Your task to perform on an android device: toggle improve location accuracy Image 0: 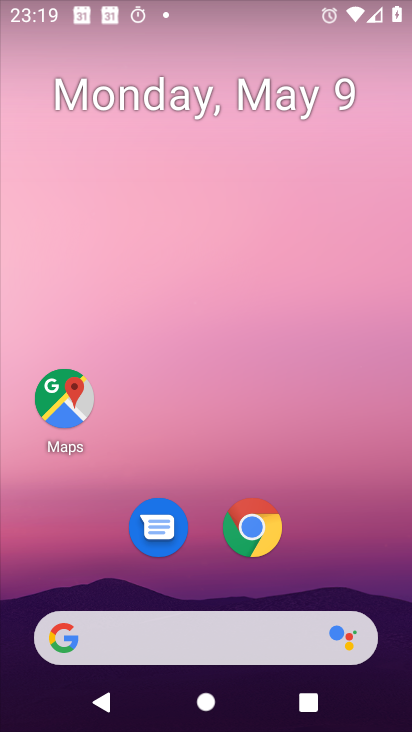
Step 0: drag from (208, 557) to (232, 3)
Your task to perform on an android device: toggle improve location accuracy Image 1: 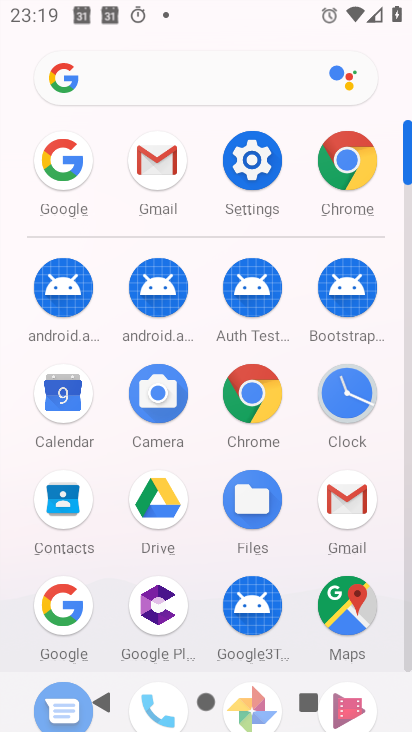
Step 1: click (251, 154)
Your task to perform on an android device: toggle improve location accuracy Image 2: 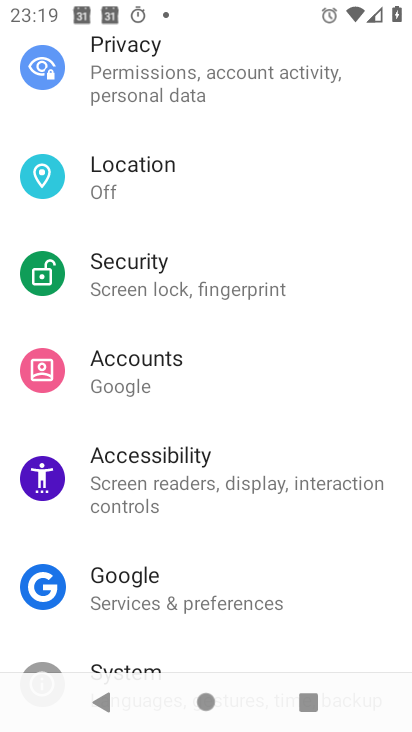
Step 2: drag from (240, 546) to (245, 473)
Your task to perform on an android device: toggle improve location accuracy Image 3: 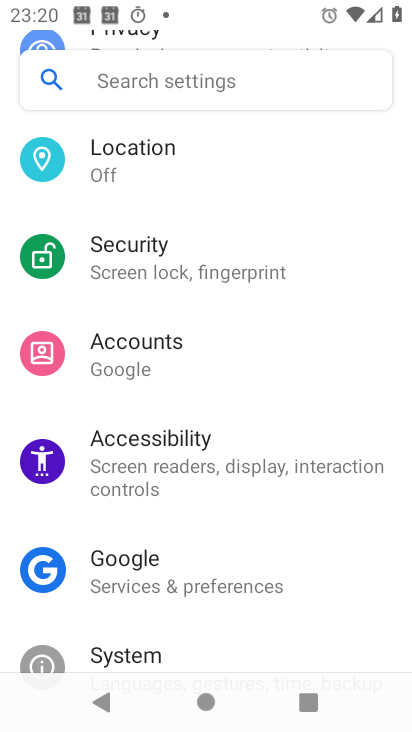
Step 3: click (170, 147)
Your task to perform on an android device: toggle improve location accuracy Image 4: 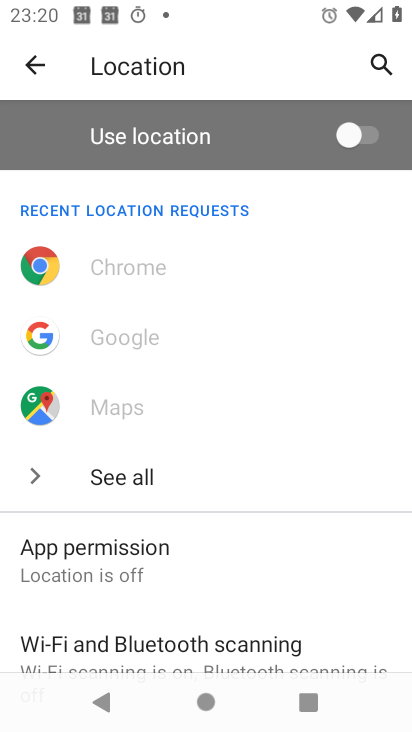
Step 4: drag from (230, 585) to (252, 312)
Your task to perform on an android device: toggle improve location accuracy Image 5: 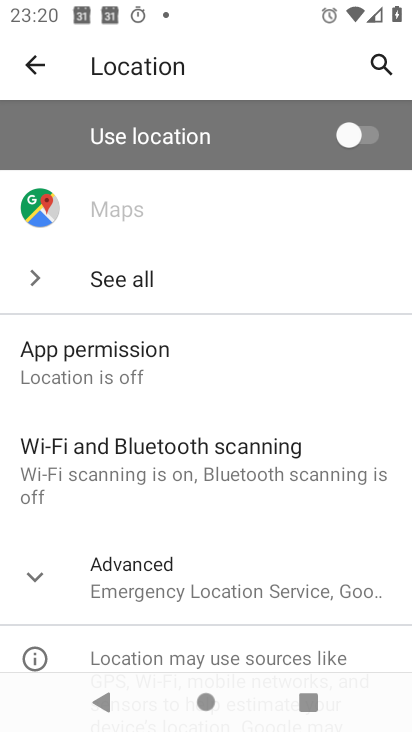
Step 5: drag from (235, 517) to (218, 213)
Your task to perform on an android device: toggle improve location accuracy Image 6: 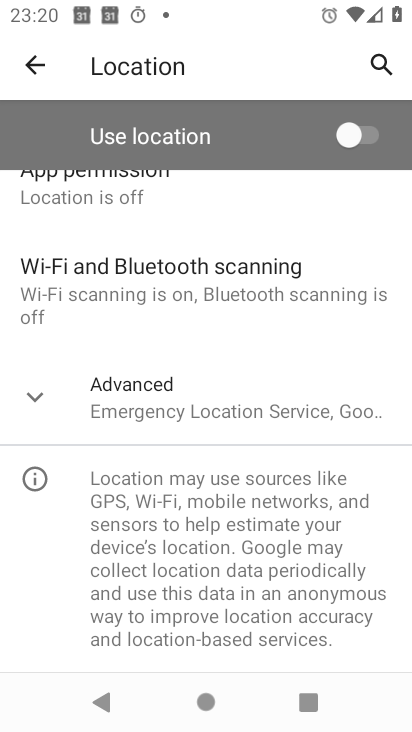
Step 6: click (116, 401)
Your task to perform on an android device: toggle improve location accuracy Image 7: 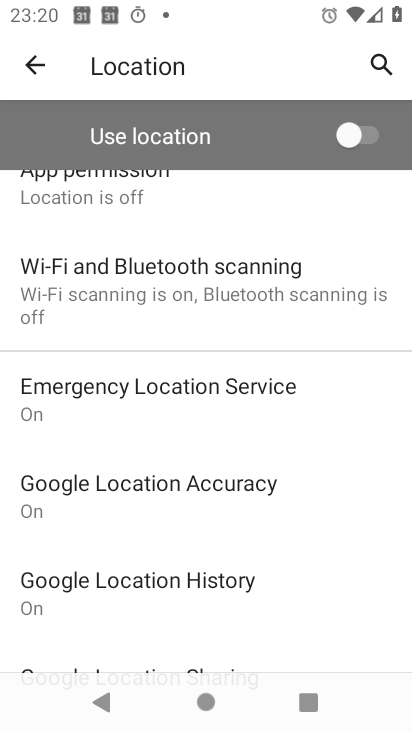
Step 7: click (161, 490)
Your task to perform on an android device: toggle improve location accuracy Image 8: 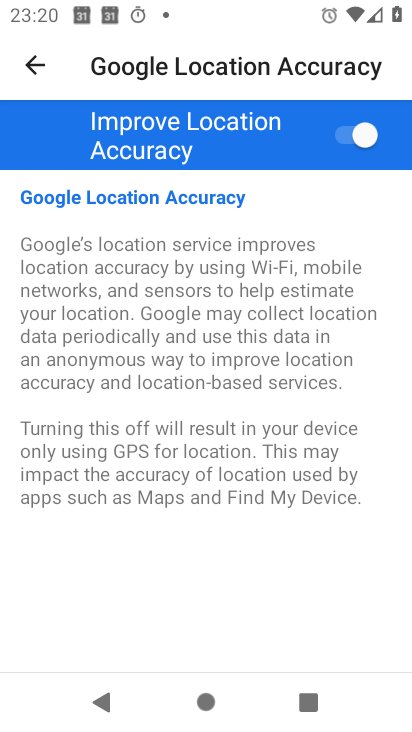
Step 8: click (342, 136)
Your task to perform on an android device: toggle improve location accuracy Image 9: 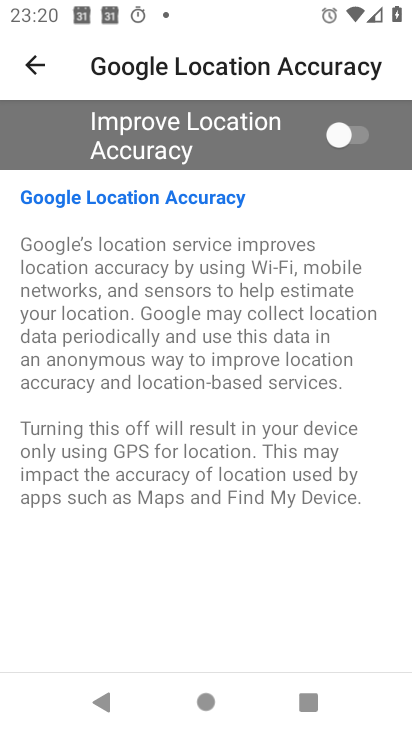
Step 9: task complete